Your task to perform on an android device: Open wifi settings Image 0: 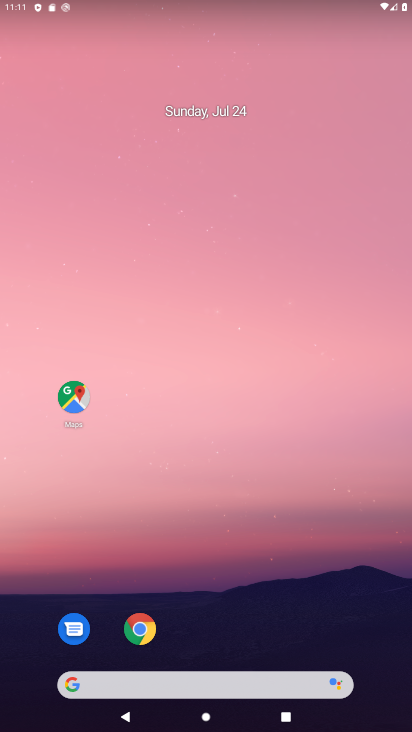
Step 0: drag from (238, 8) to (248, 551)
Your task to perform on an android device: Open wifi settings Image 1: 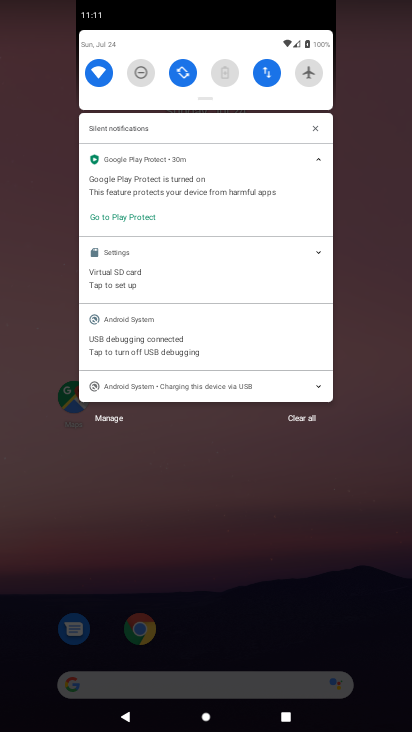
Step 1: click (101, 85)
Your task to perform on an android device: Open wifi settings Image 2: 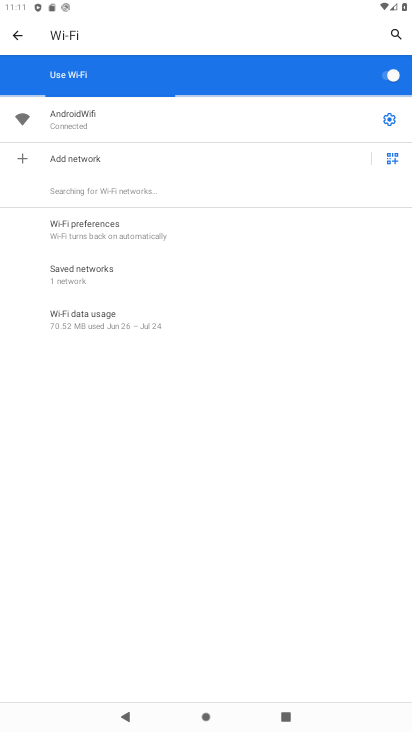
Step 2: task complete